Your task to perform on an android device: check google app version Image 0: 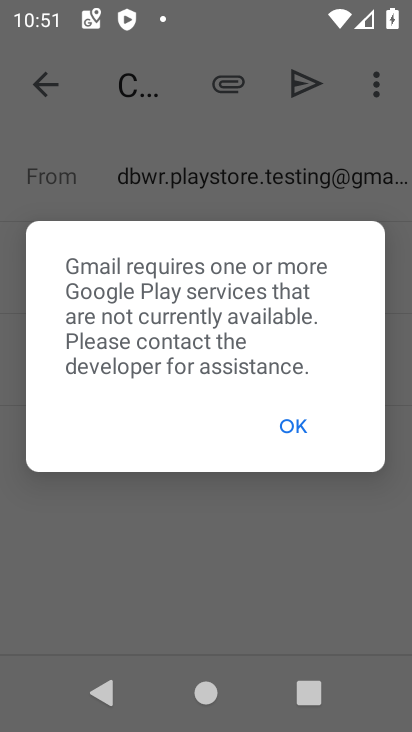
Step 0: click (307, 411)
Your task to perform on an android device: check google app version Image 1: 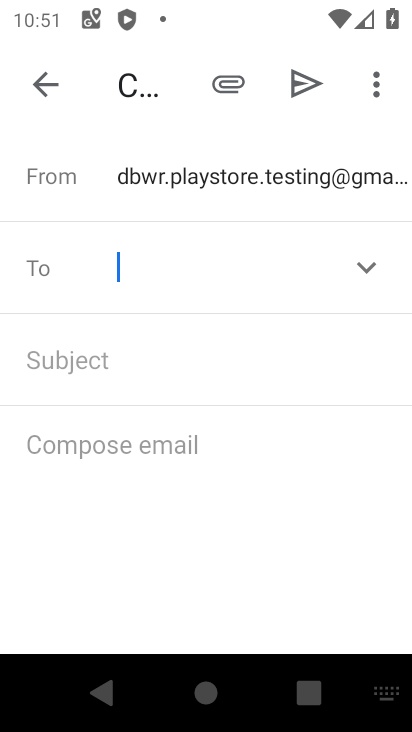
Step 1: press home button
Your task to perform on an android device: check google app version Image 2: 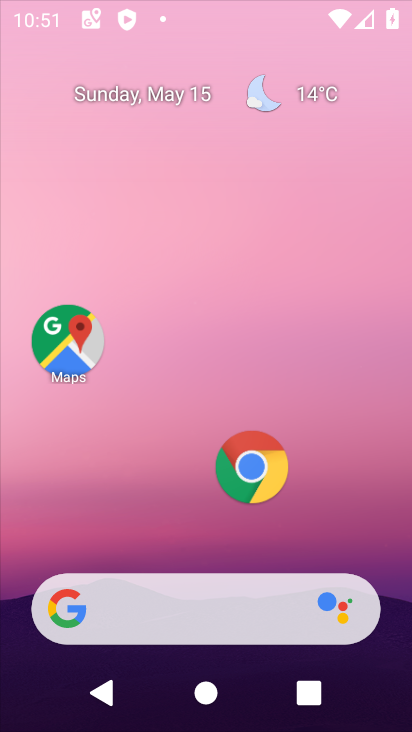
Step 2: drag from (231, 548) to (257, 216)
Your task to perform on an android device: check google app version Image 3: 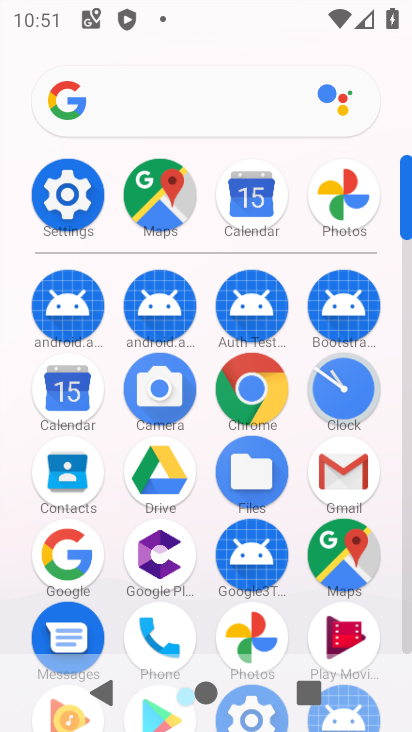
Step 3: click (95, 577)
Your task to perform on an android device: check google app version Image 4: 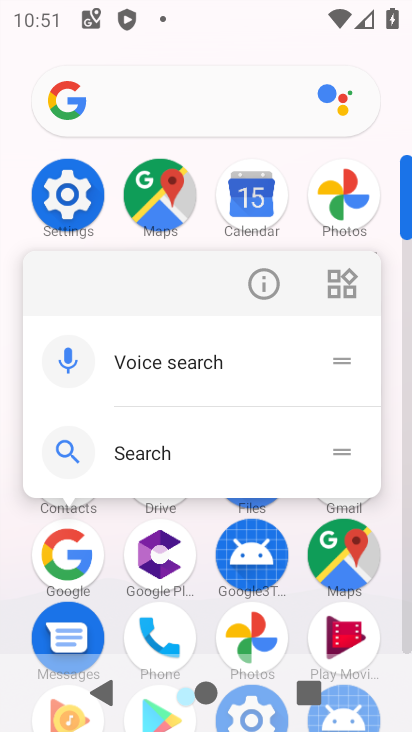
Step 4: click (272, 298)
Your task to perform on an android device: check google app version Image 5: 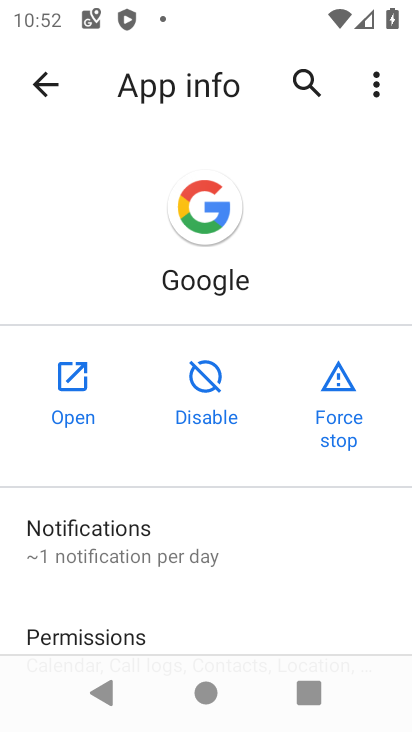
Step 5: click (95, 403)
Your task to perform on an android device: check google app version Image 6: 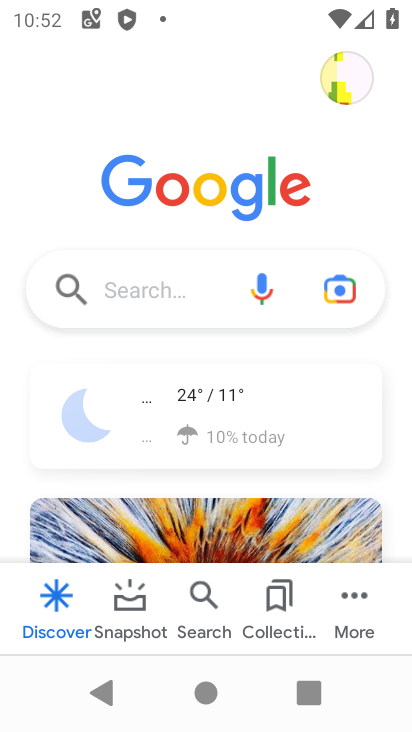
Step 6: click (330, 610)
Your task to perform on an android device: check google app version Image 7: 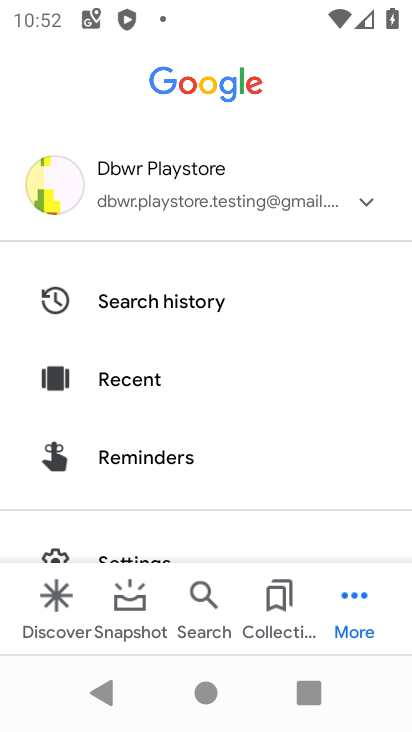
Step 7: drag from (151, 428) to (212, 5)
Your task to perform on an android device: check google app version Image 8: 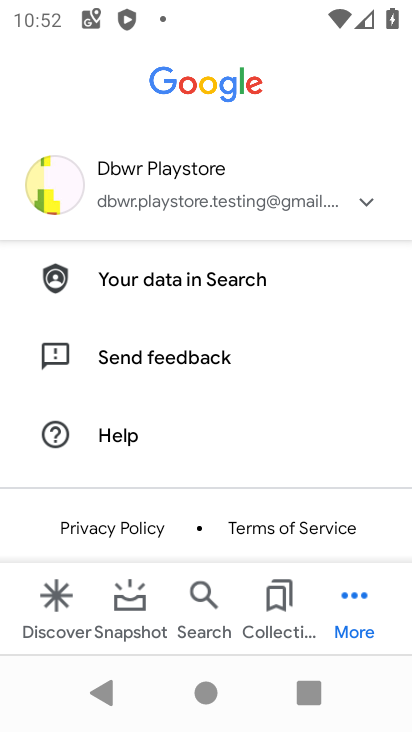
Step 8: drag from (155, 345) to (200, 529)
Your task to perform on an android device: check google app version Image 9: 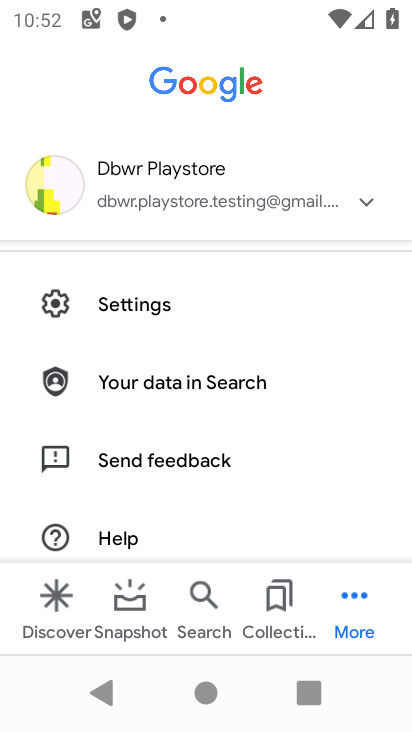
Step 9: click (155, 300)
Your task to perform on an android device: check google app version Image 10: 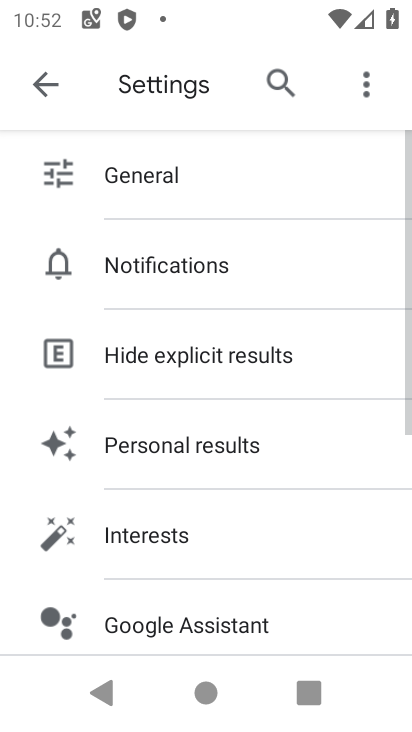
Step 10: drag from (274, 605) to (258, 25)
Your task to perform on an android device: check google app version Image 11: 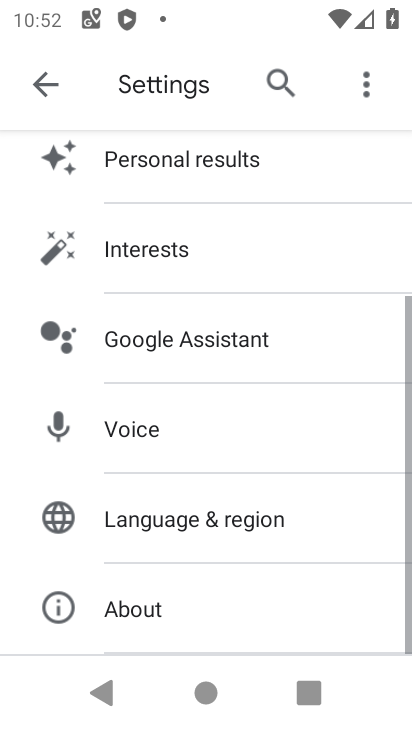
Step 11: click (216, 633)
Your task to perform on an android device: check google app version Image 12: 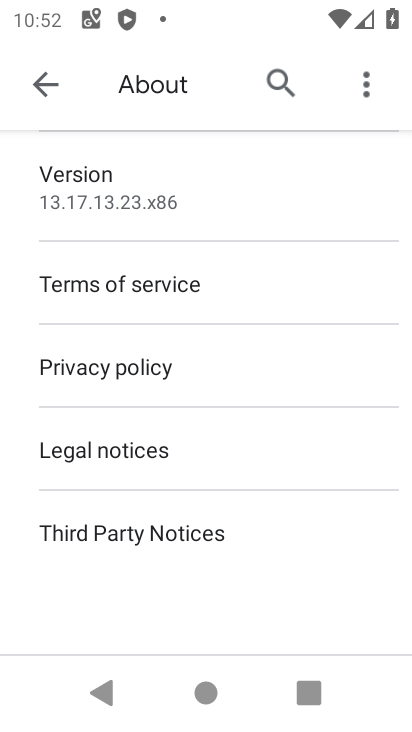
Step 12: click (188, 203)
Your task to perform on an android device: check google app version Image 13: 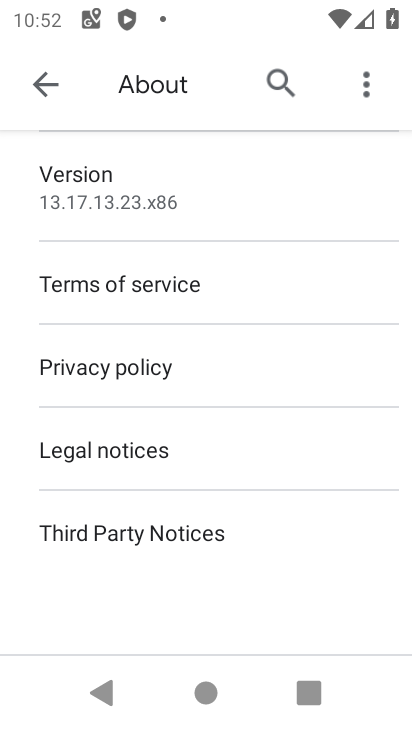
Step 13: task complete